Your task to perform on an android device: change notification settings in the gmail app Image 0: 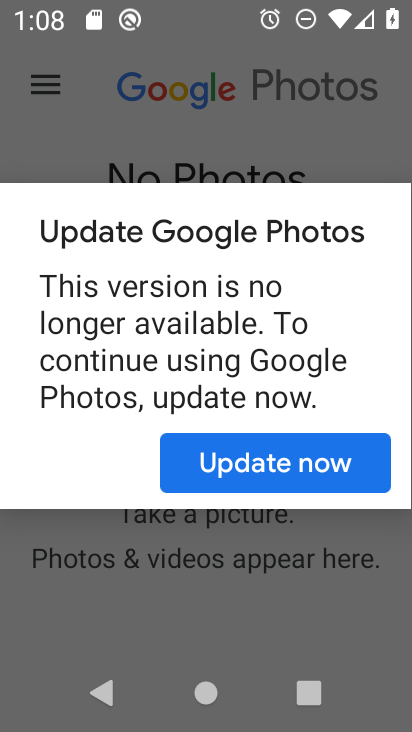
Step 0: press home button
Your task to perform on an android device: change notification settings in the gmail app Image 1: 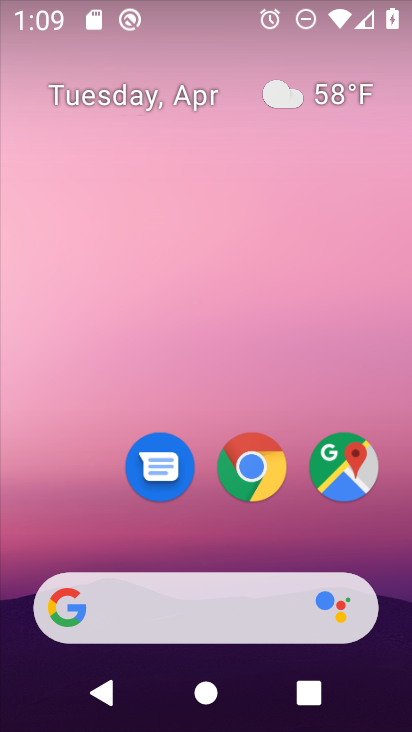
Step 1: drag from (245, 10) to (96, 635)
Your task to perform on an android device: change notification settings in the gmail app Image 2: 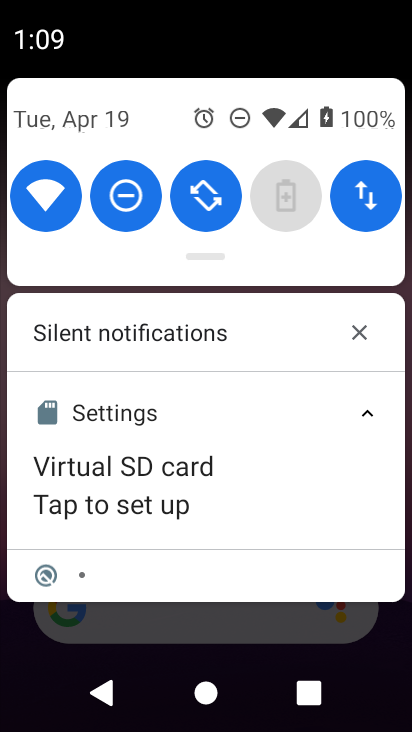
Step 2: drag from (144, 98) to (117, 692)
Your task to perform on an android device: change notification settings in the gmail app Image 3: 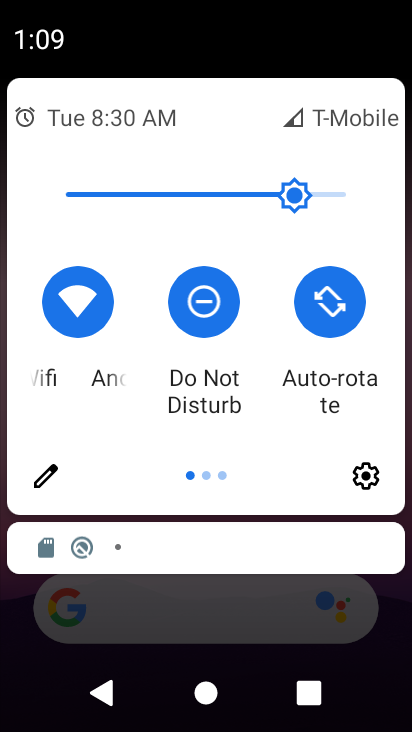
Step 3: click (373, 481)
Your task to perform on an android device: change notification settings in the gmail app Image 4: 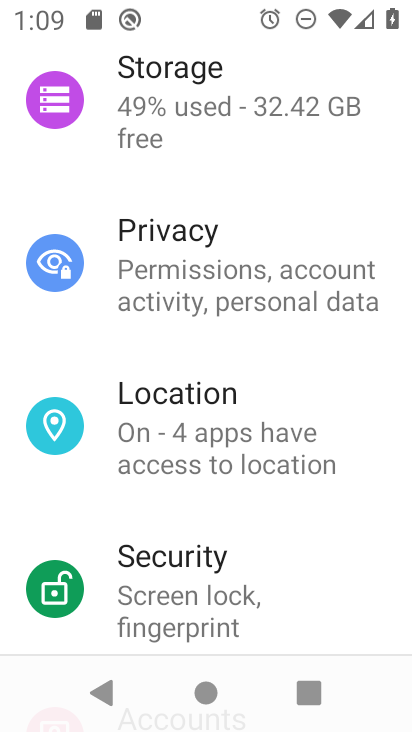
Step 4: drag from (243, 107) to (191, 550)
Your task to perform on an android device: change notification settings in the gmail app Image 5: 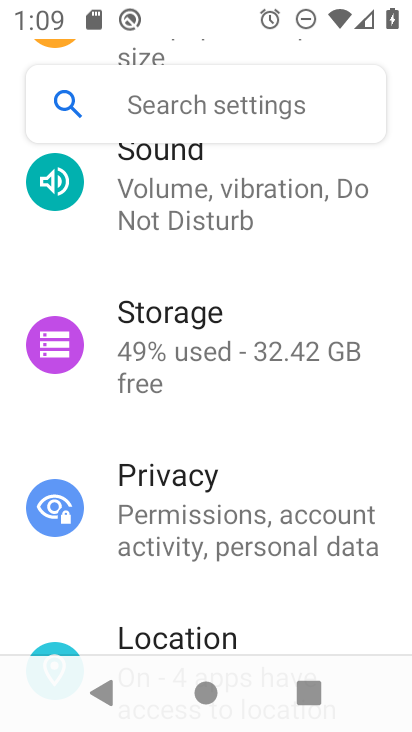
Step 5: drag from (159, 257) to (131, 613)
Your task to perform on an android device: change notification settings in the gmail app Image 6: 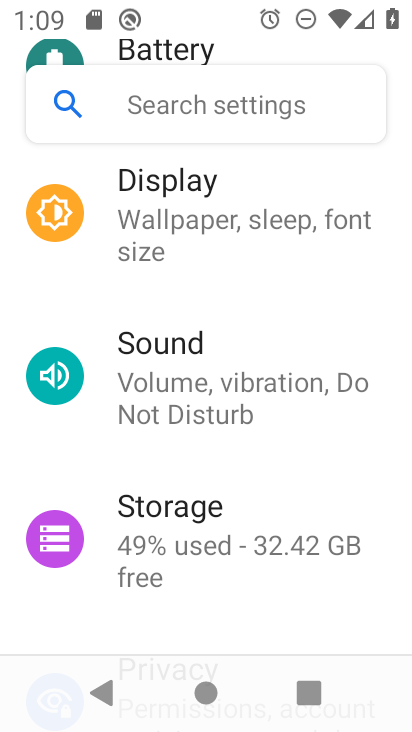
Step 6: drag from (208, 204) to (141, 568)
Your task to perform on an android device: change notification settings in the gmail app Image 7: 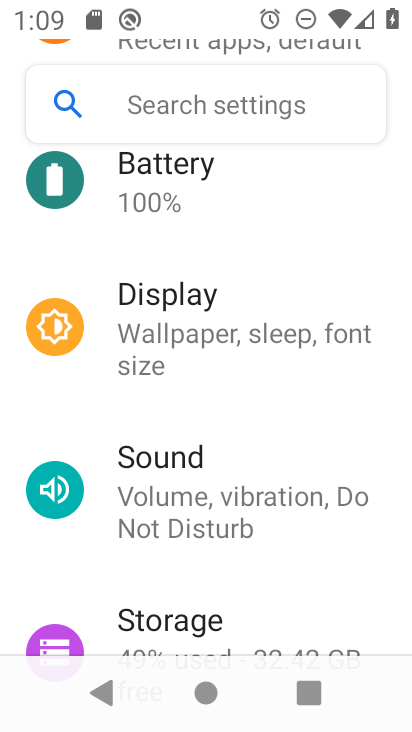
Step 7: drag from (269, 179) to (235, 536)
Your task to perform on an android device: change notification settings in the gmail app Image 8: 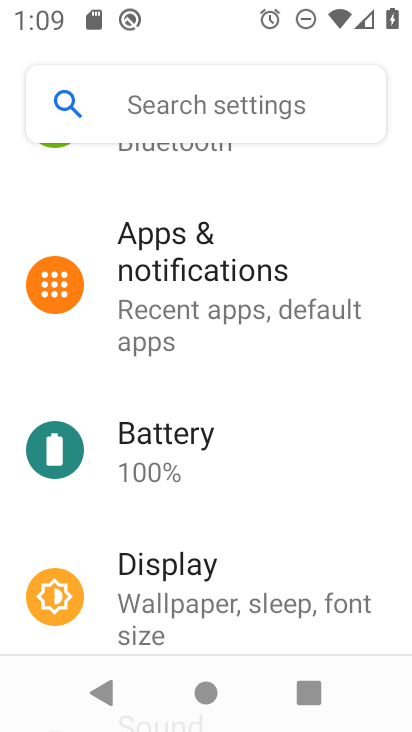
Step 8: click (200, 279)
Your task to perform on an android device: change notification settings in the gmail app Image 9: 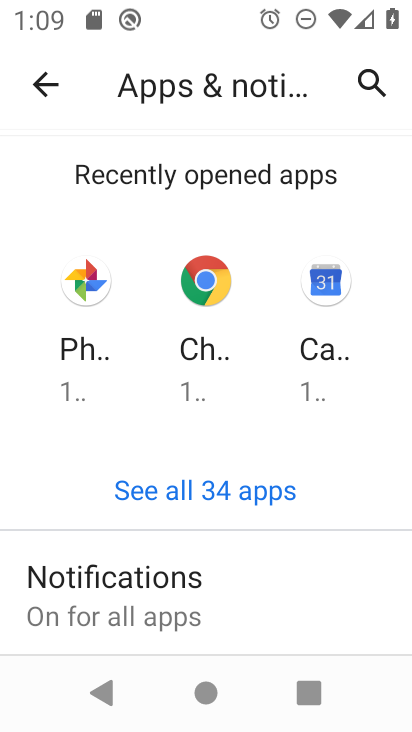
Step 9: click (231, 482)
Your task to perform on an android device: change notification settings in the gmail app Image 10: 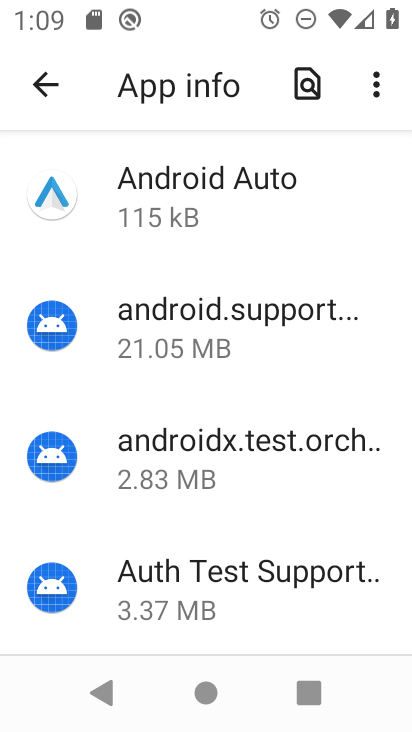
Step 10: drag from (155, 628) to (227, 38)
Your task to perform on an android device: change notification settings in the gmail app Image 11: 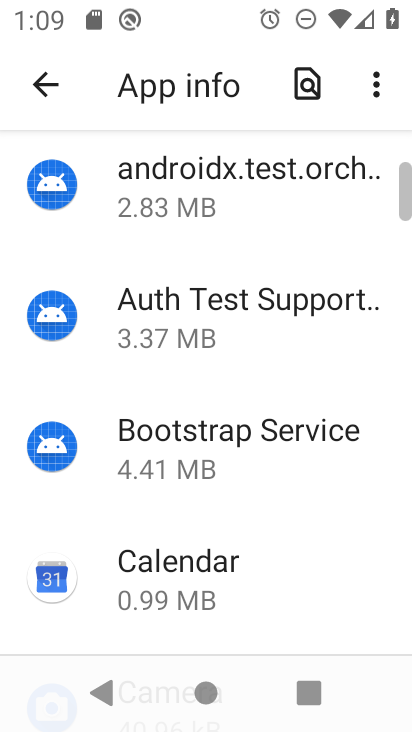
Step 11: drag from (176, 501) to (174, 62)
Your task to perform on an android device: change notification settings in the gmail app Image 12: 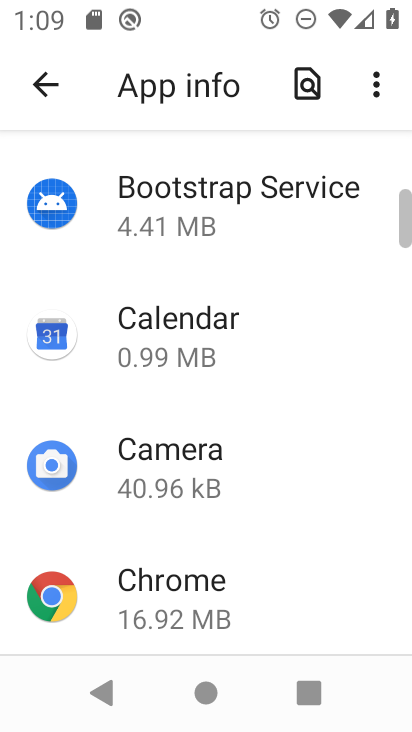
Step 12: drag from (146, 534) to (221, 102)
Your task to perform on an android device: change notification settings in the gmail app Image 13: 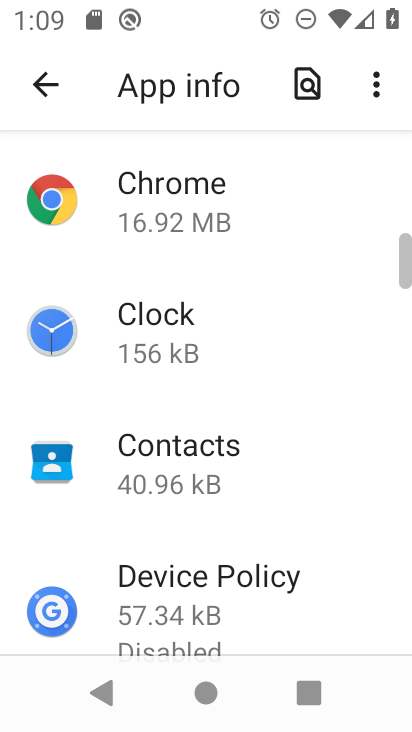
Step 13: drag from (149, 519) to (140, 99)
Your task to perform on an android device: change notification settings in the gmail app Image 14: 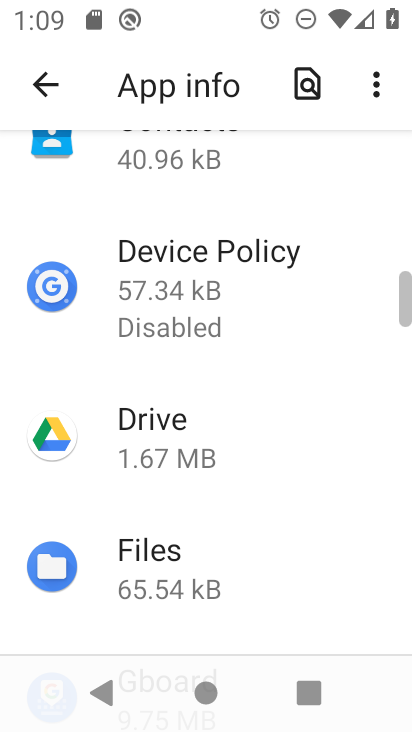
Step 14: drag from (161, 507) to (196, 81)
Your task to perform on an android device: change notification settings in the gmail app Image 15: 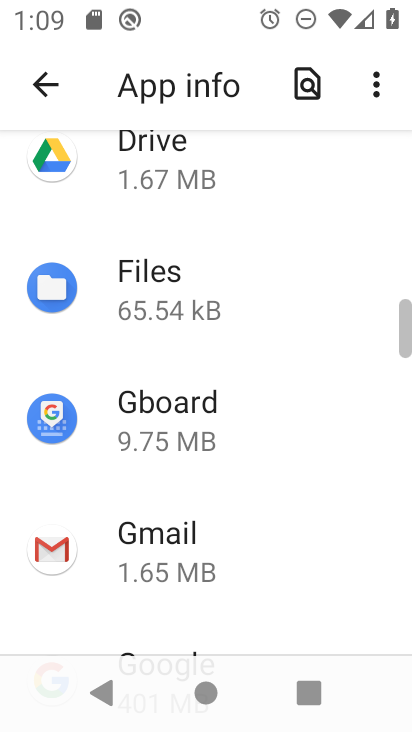
Step 15: click (143, 528)
Your task to perform on an android device: change notification settings in the gmail app Image 16: 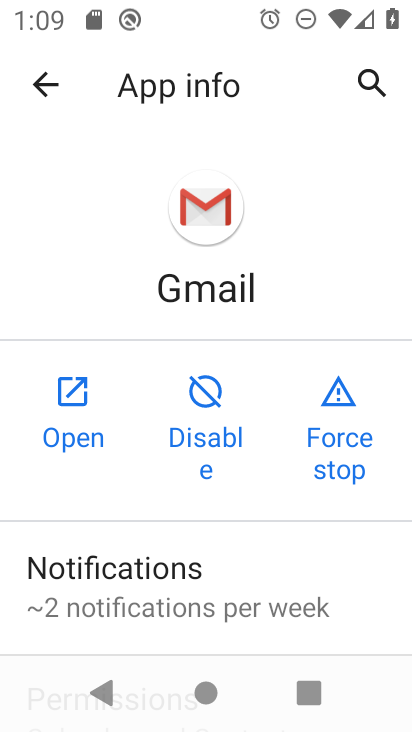
Step 16: click (191, 583)
Your task to perform on an android device: change notification settings in the gmail app Image 17: 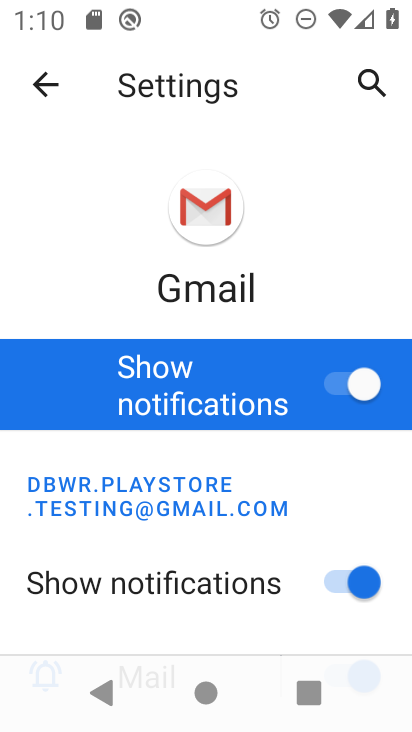
Step 17: click (333, 389)
Your task to perform on an android device: change notification settings in the gmail app Image 18: 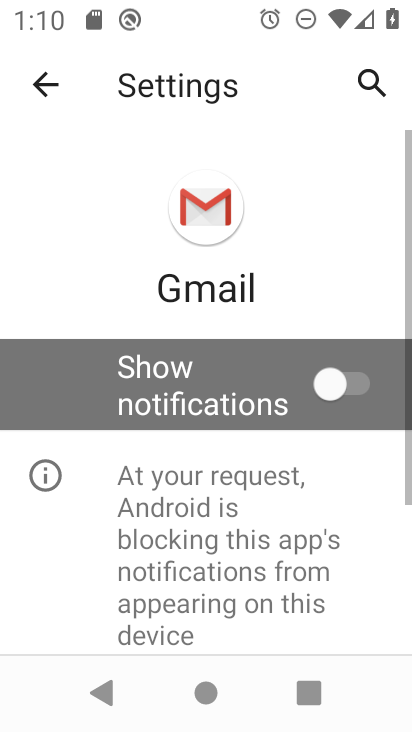
Step 18: task complete